Your task to perform on an android device: open device folders in google photos Image 0: 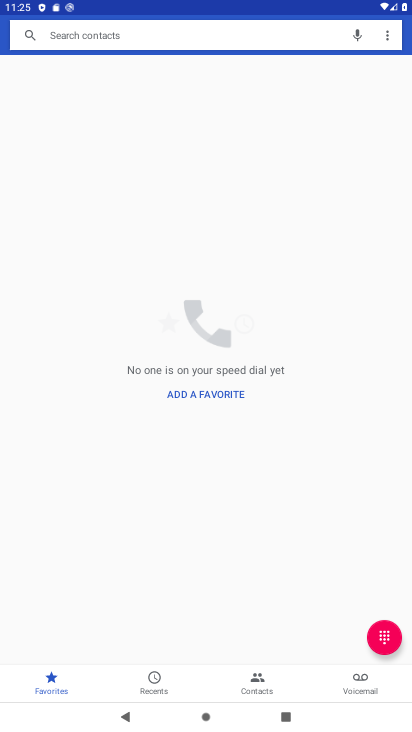
Step 0: press home button
Your task to perform on an android device: open device folders in google photos Image 1: 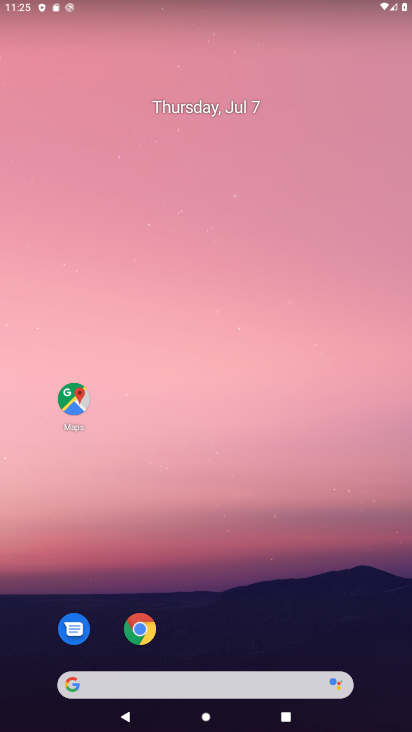
Step 1: drag from (360, 495) to (325, 111)
Your task to perform on an android device: open device folders in google photos Image 2: 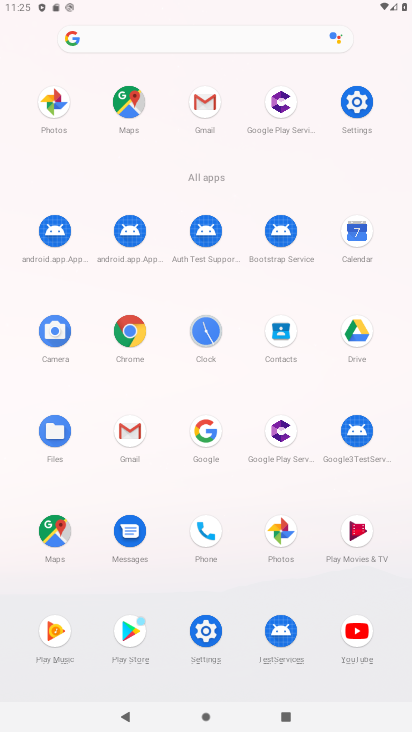
Step 2: click (277, 530)
Your task to perform on an android device: open device folders in google photos Image 3: 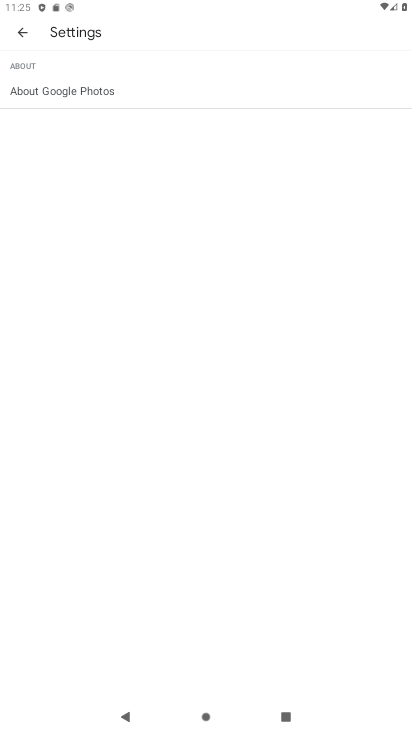
Step 3: press back button
Your task to perform on an android device: open device folders in google photos Image 4: 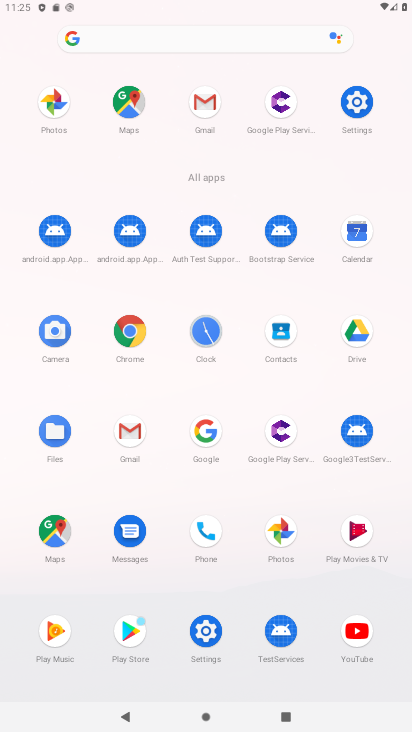
Step 4: click (281, 528)
Your task to perform on an android device: open device folders in google photos Image 5: 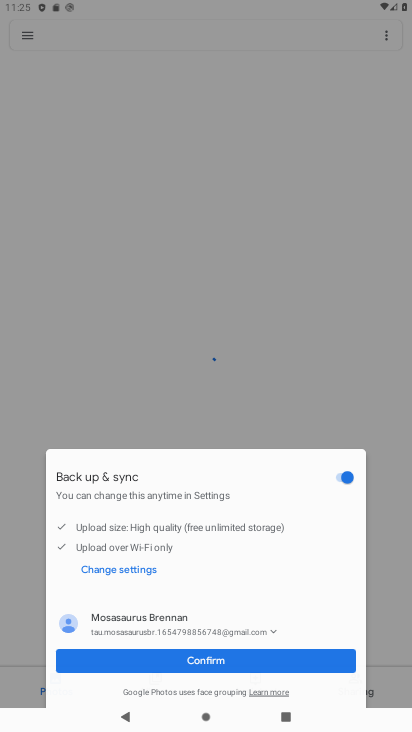
Step 5: click (26, 33)
Your task to perform on an android device: open device folders in google photos Image 6: 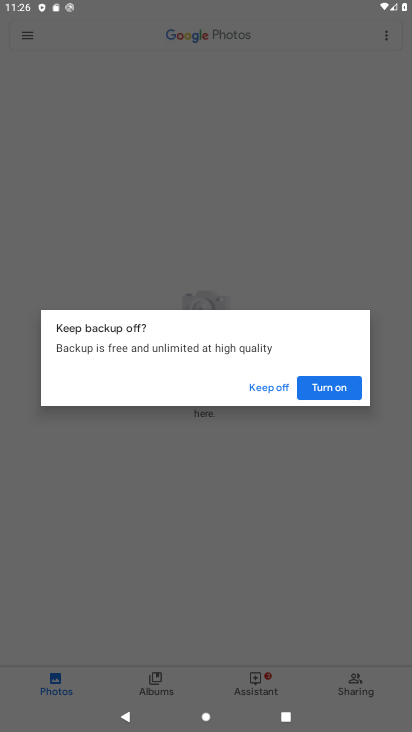
Step 6: click (330, 389)
Your task to perform on an android device: open device folders in google photos Image 7: 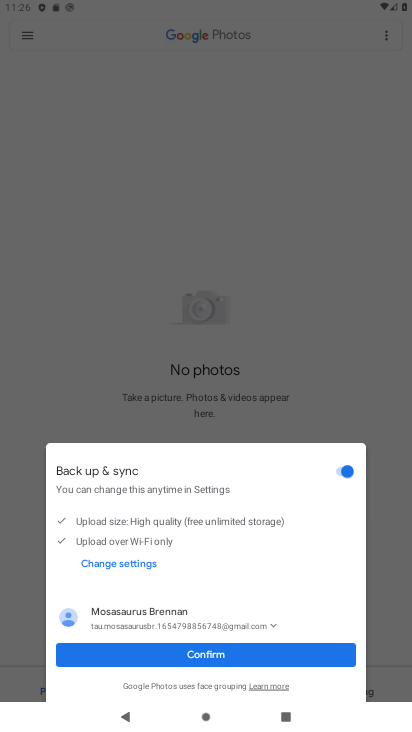
Step 7: click (207, 657)
Your task to perform on an android device: open device folders in google photos Image 8: 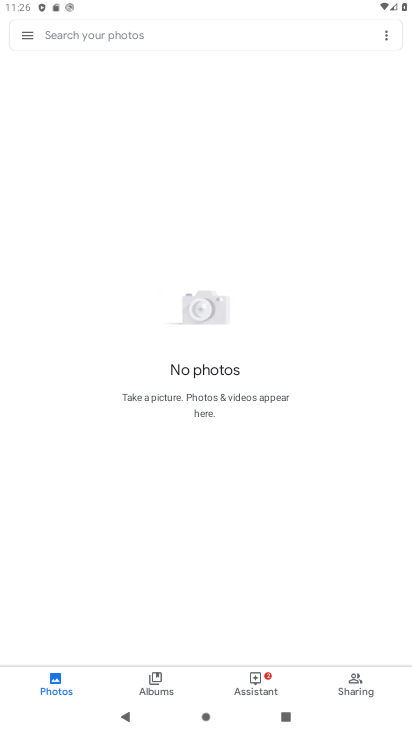
Step 8: click (27, 39)
Your task to perform on an android device: open device folders in google photos Image 9: 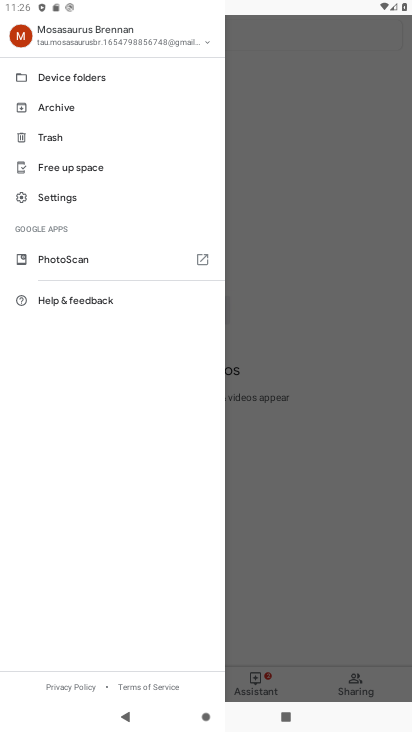
Step 9: click (63, 79)
Your task to perform on an android device: open device folders in google photos Image 10: 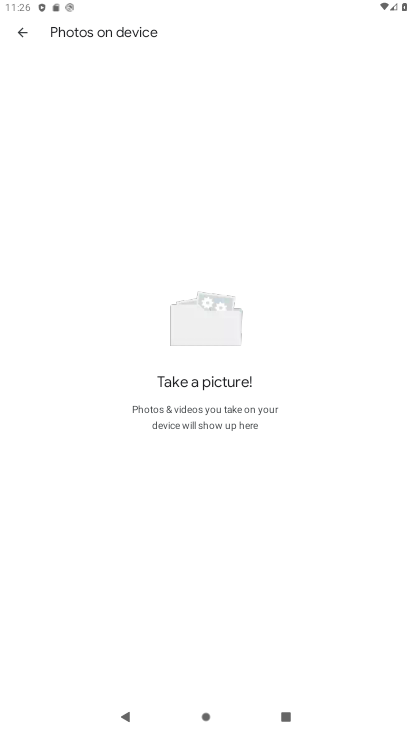
Step 10: task complete